Your task to perform on an android device: turn notification dots off Image 0: 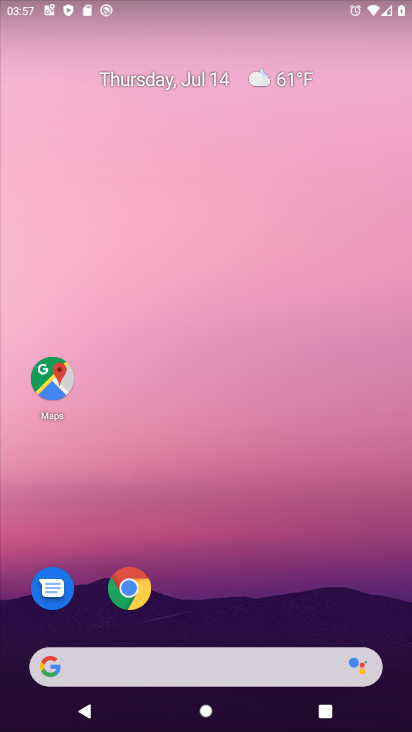
Step 0: press home button
Your task to perform on an android device: turn notification dots off Image 1: 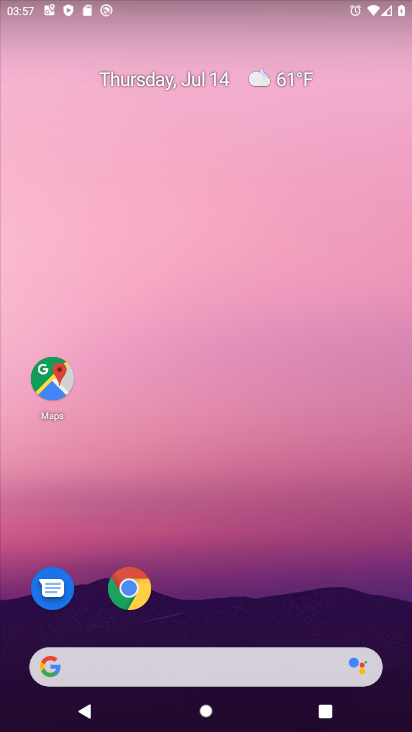
Step 1: press home button
Your task to perform on an android device: turn notification dots off Image 2: 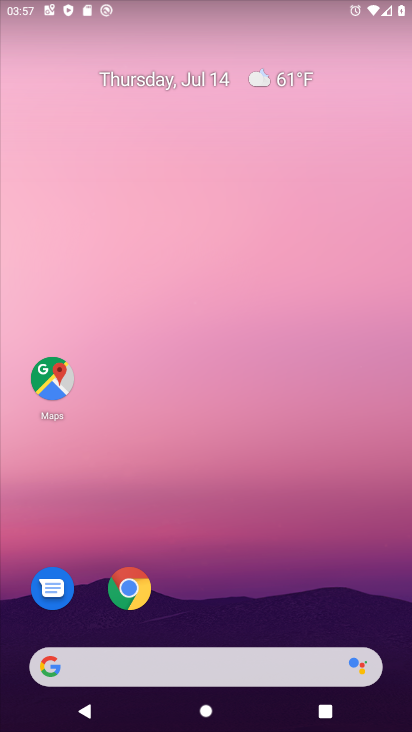
Step 2: drag from (251, 606) to (255, 20)
Your task to perform on an android device: turn notification dots off Image 3: 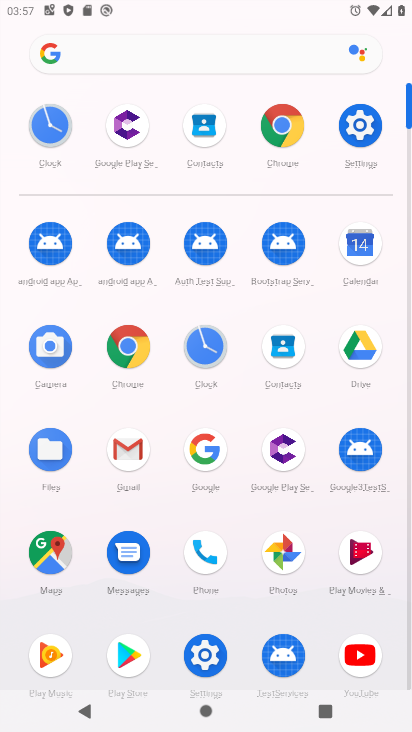
Step 3: click (362, 132)
Your task to perform on an android device: turn notification dots off Image 4: 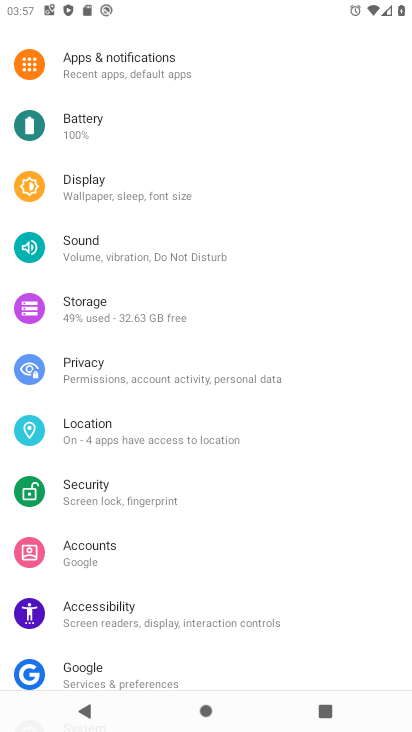
Step 4: click (123, 64)
Your task to perform on an android device: turn notification dots off Image 5: 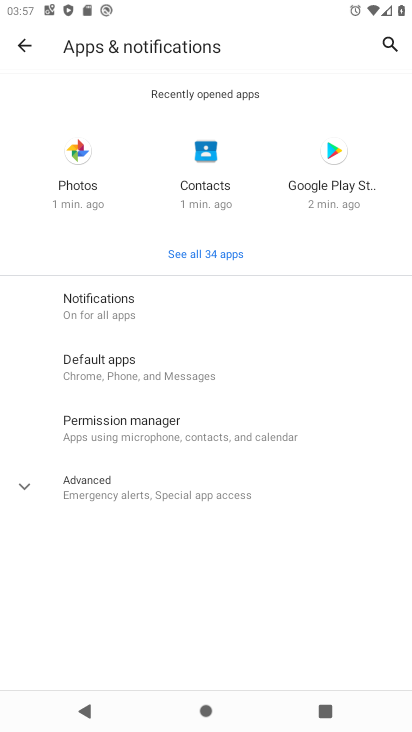
Step 5: click (123, 305)
Your task to perform on an android device: turn notification dots off Image 6: 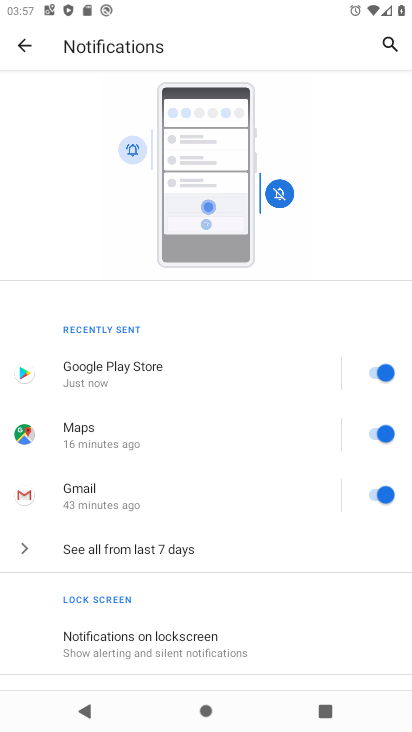
Step 6: drag from (236, 601) to (206, 250)
Your task to perform on an android device: turn notification dots off Image 7: 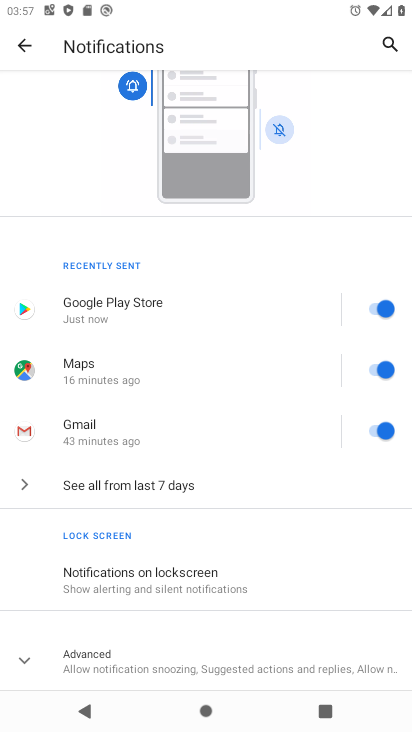
Step 7: click (25, 666)
Your task to perform on an android device: turn notification dots off Image 8: 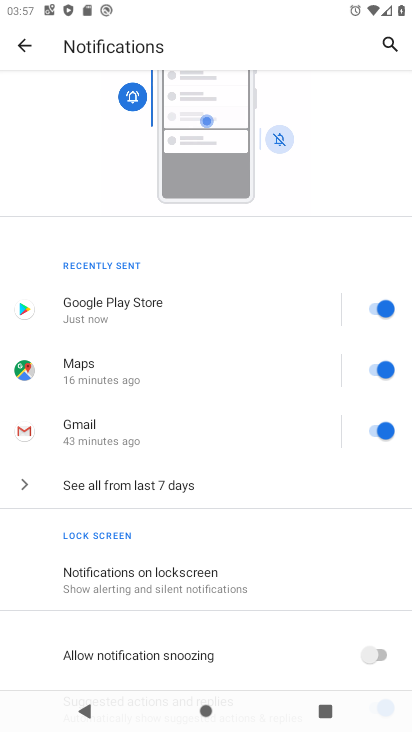
Step 8: task complete